Your task to perform on an android device: change alarm snooze length Image 0: 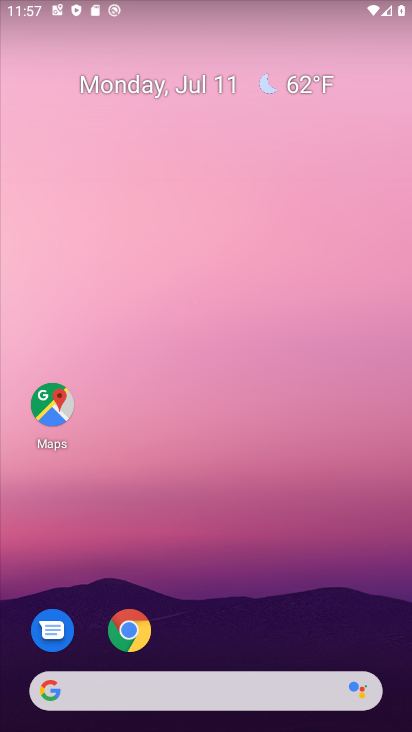
Step 0: drag from (260, 698) to (315, 4)
Your task to perform on an android device: change alarm snooze length Image 1: 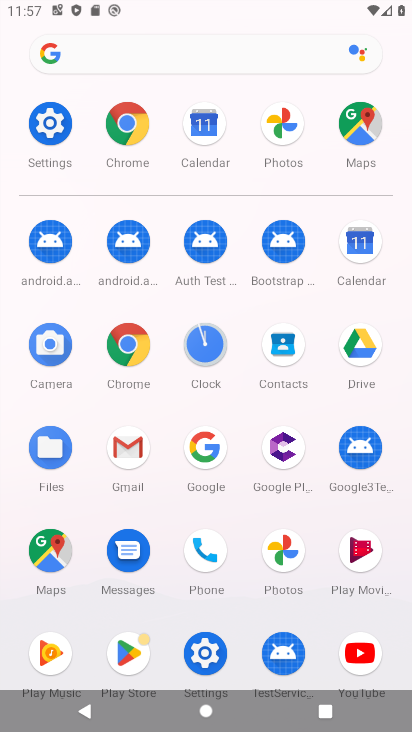
Step 1: click (207, 357)
Your task to perform on an android device: change alarm snooze length Image 2: 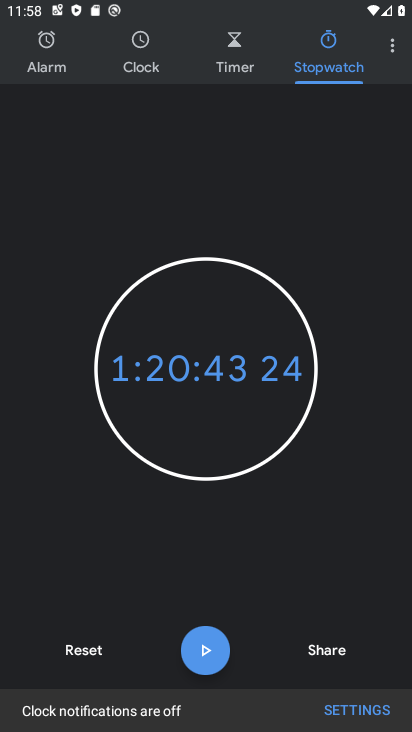
Step 2: click (388, 42)
Your task to perform on an android device: change alarm snooze length Image 3: 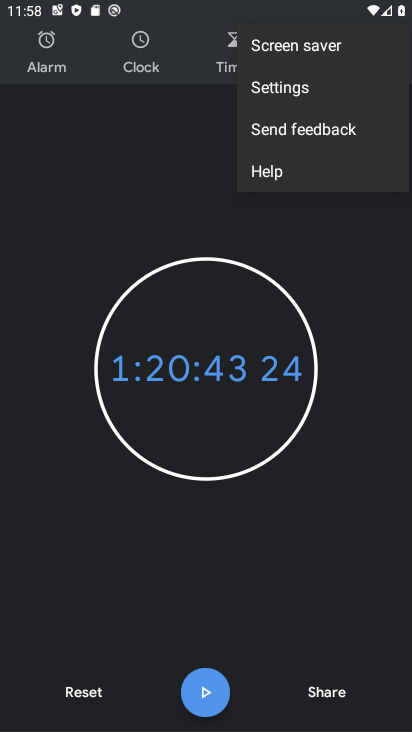
Step 3: click (303, 95)
Your task to perform on an android device: change alarm snooze length Image 4: 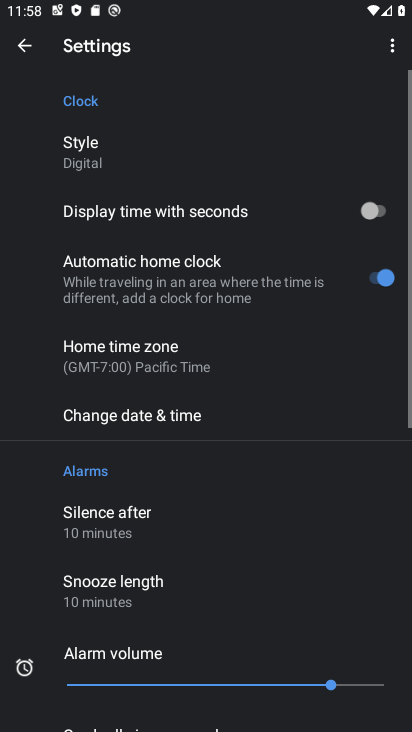
Step 4: drag from (180, 594) to (201, 453)
Your task to perform on an android device: change alarm snooze length Image 5: 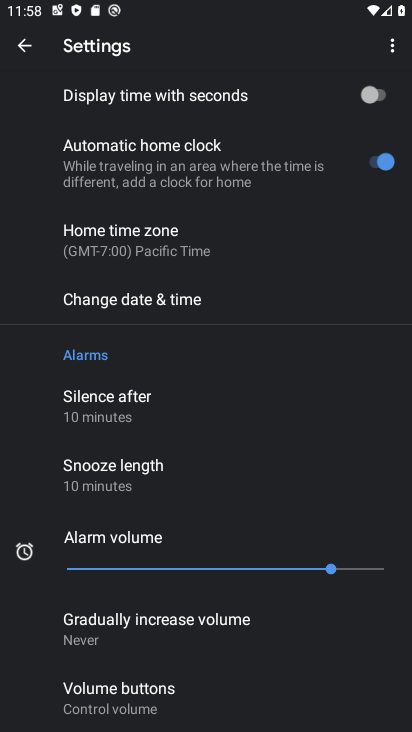
Step 5: click (162, 477)
Your task to perform on an android device: change alarm snooze length Image 6: 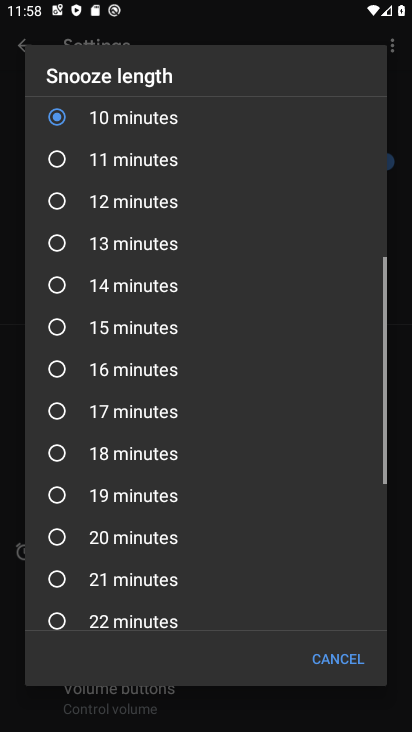
Step 6: click (109, 156)
Your task to perform on an android device: change alarm snooze length Image 7: 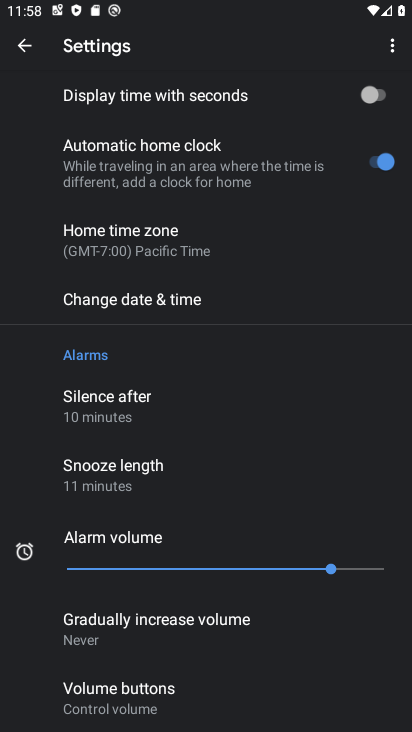
Step 7: task complete